Your task to perform on an android device: Play the last video I watched on Youtube Image 0: 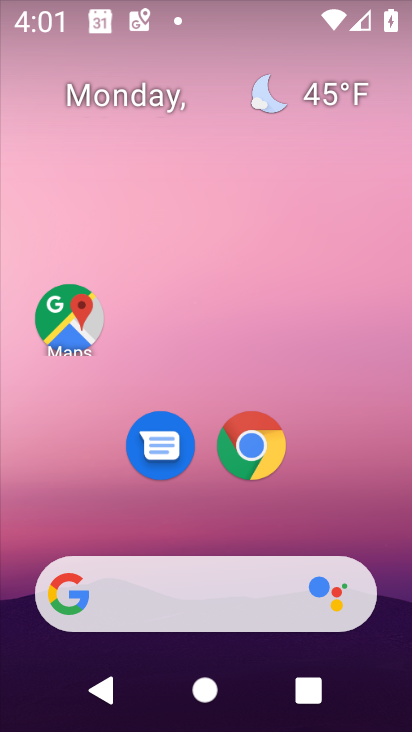
Step 0: drag from (310, 496) to (314, 33)
Your task to perform on an android device: Play the last video I watched on Youtube Image 1: 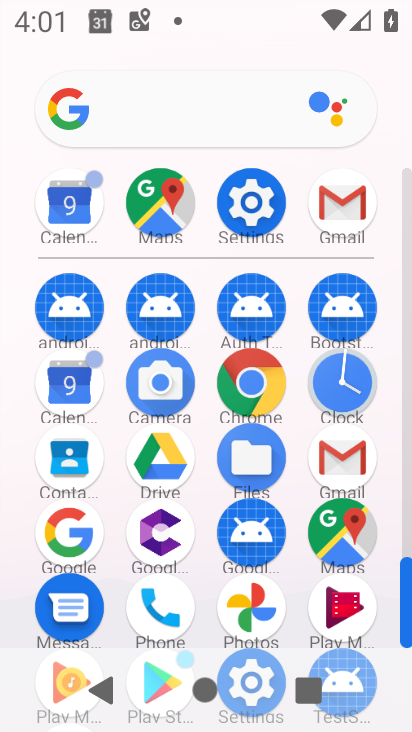
Step 1: drag from (300, 620) to (297, 248)
Your task to perform on an android device: Play the last video I watched on Youtube Image 2: 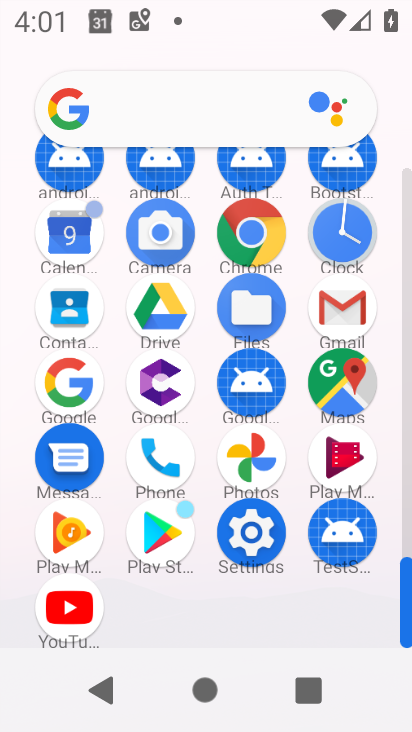
Step 2: click (71, 620)
Your task to perform on an android device: Play the last video I watched on Youtube Image 3: 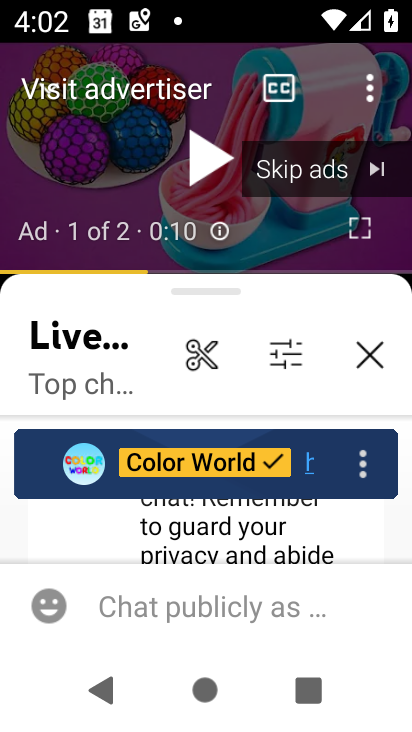
Step 3: press back button
Your task to perform on an android device: Play the last video I watched on Youtube Image 4: 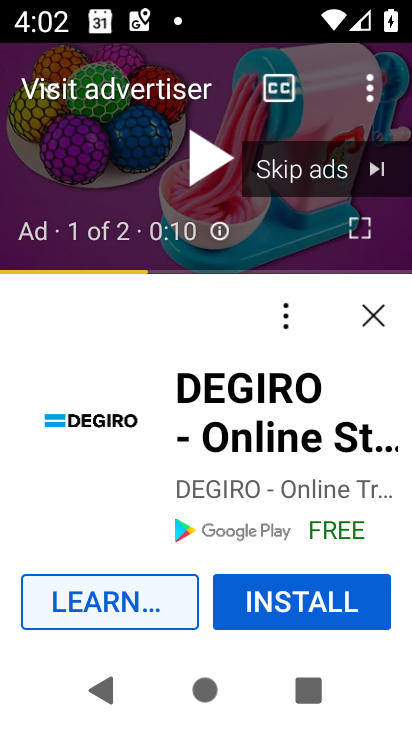
Step 4: press back button
Your task to perform on an android device: Play the last video I watched on Youtube Image 5: 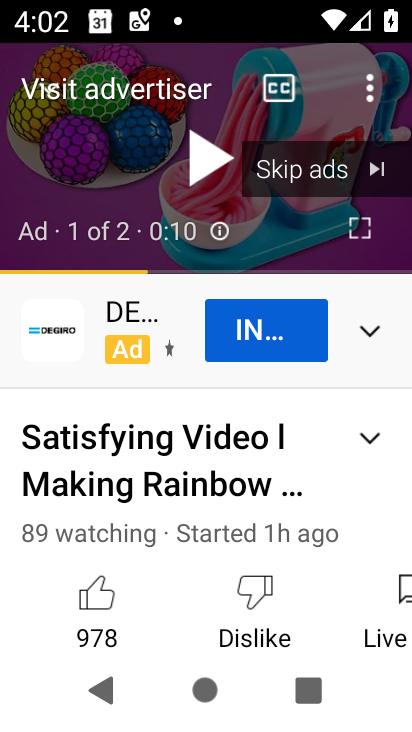
Step 5: press back button
Your task to perform on an android device: Play the last video I watched on Youtube Image 6: 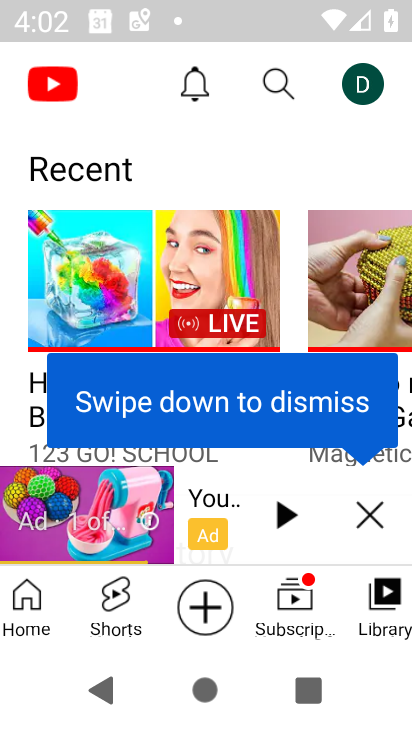
Step 6: click (368, 603)
Your task to perform on an android device: Play the last video I watched on Youtube Image 7: 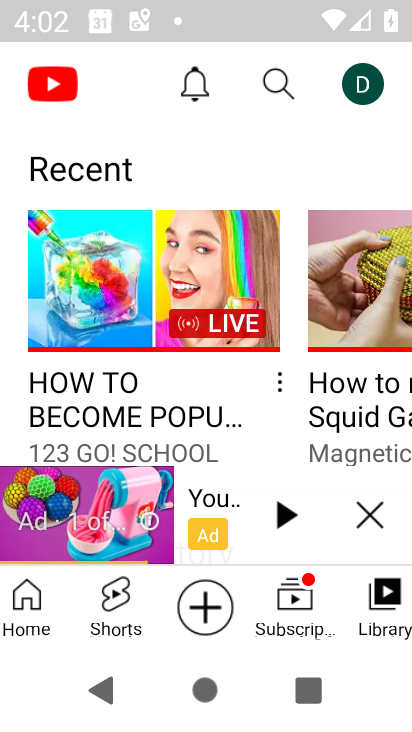
Step 7: click (101, 297)
Your task to perform on an android device: Play the last video I watched on Youtube Image 8: 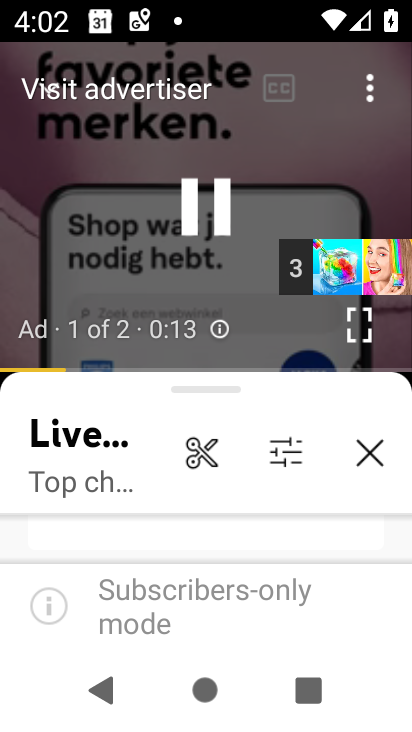
Step 8: task complete